Your task to perform on an android device: Go to settings Image 0: 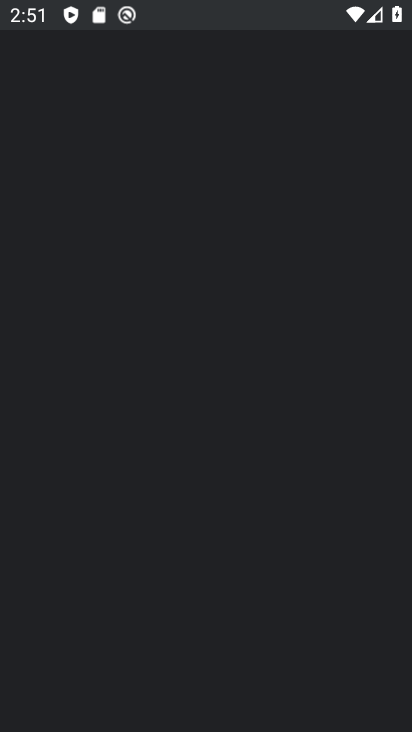
Step 0: drag from (381, 626) to (291, 258)
Your task to perform on an android device: Go to settings Image 1: 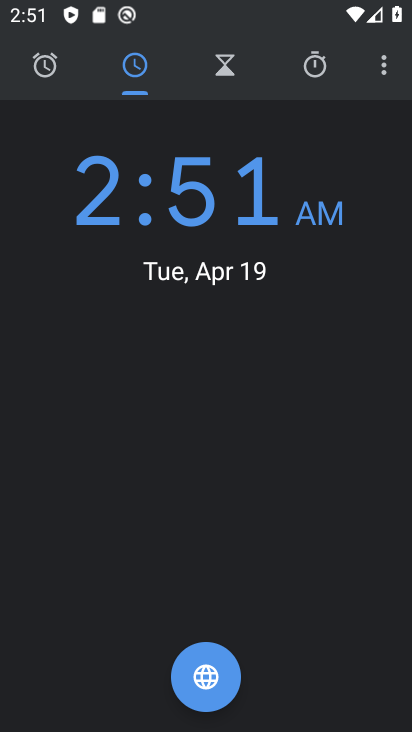
Step 1: press home button
Your task to perform on an android device: Go to settings Image 2: 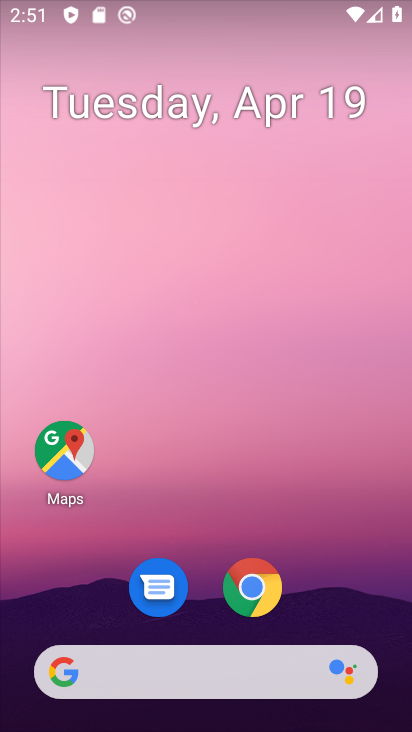
Step 2: drag from (376, 592) to (260, 72)
Your task to perform on an android device: Go to settings Image 3: 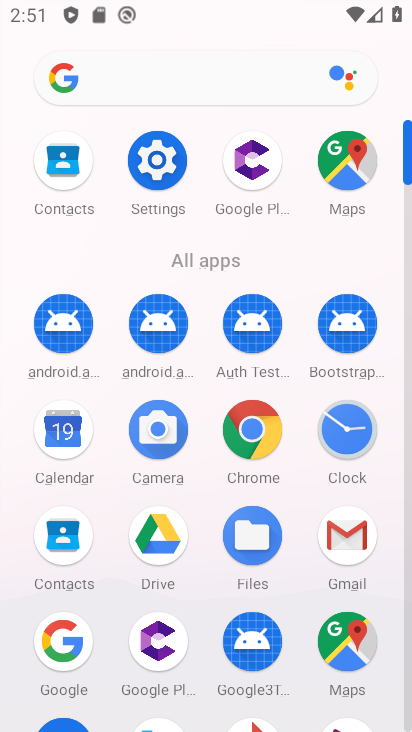
Step 3: click (157, 181)
Your task to perform on an android device: Go to settings Image 4: 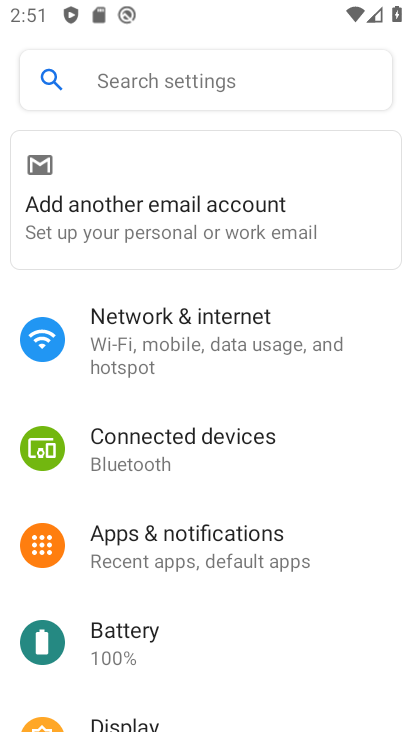
Step 4: task complete